Your task to perform on an android device: toggle notifications settings in the gmail app Image 0: 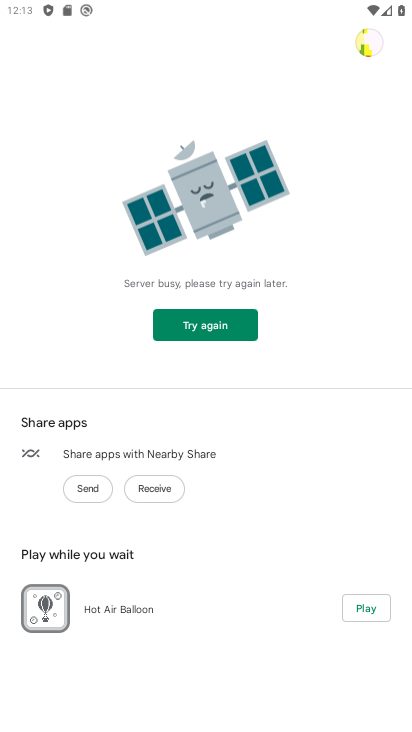
Step 0: press home button
Your task to perform on an android device: toggle notifications settings in the gmail app Image 1: 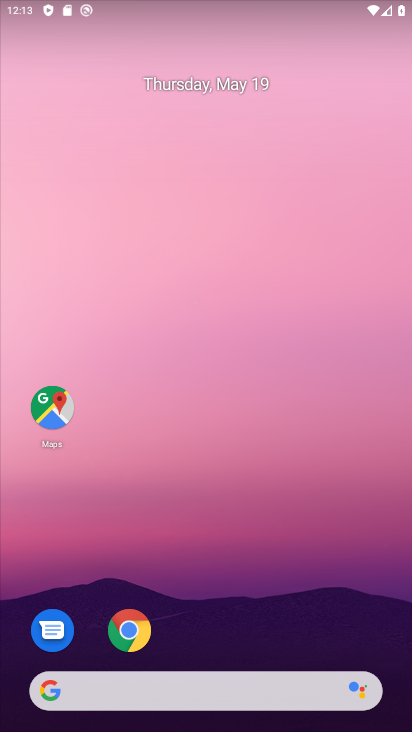
Step 1: drag from (227, 639) to (304, 290)
Your task to perform on an android device: toggle notifications settings in the gmail app Image 2: 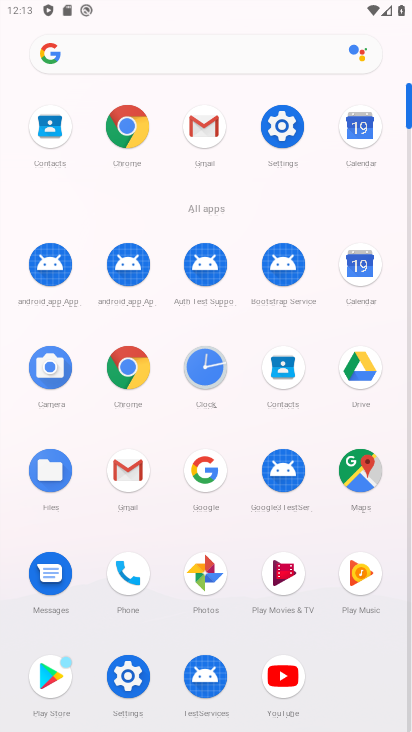
Step 2: click (209, 139)
Your task to perform on an android device: toggle notifications settings in the gmail app Image 3: 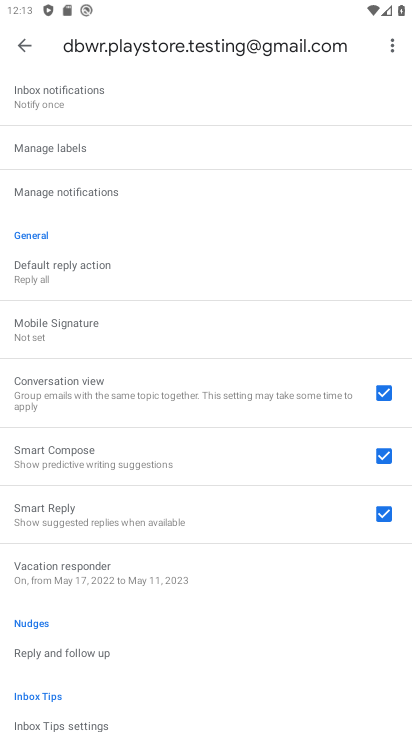
Step 3: click (23, 42)
Your task to perform on an android device: toggle notifications settings in the gmail app Image 4: 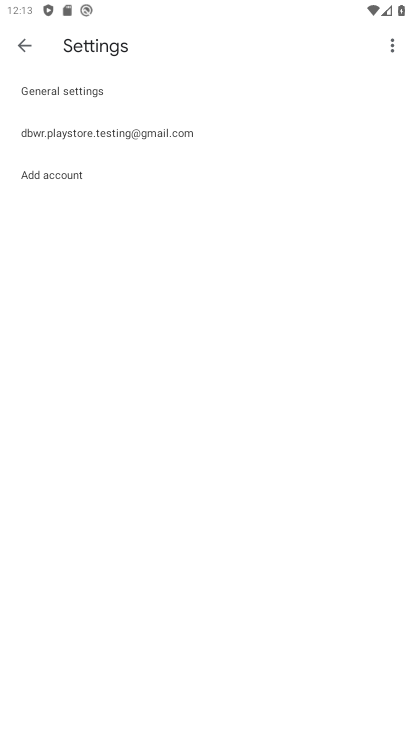
Step 4: click (120, 126)
Your task to perform on an android device: toggle notifications settings in the gmail app Image 5: 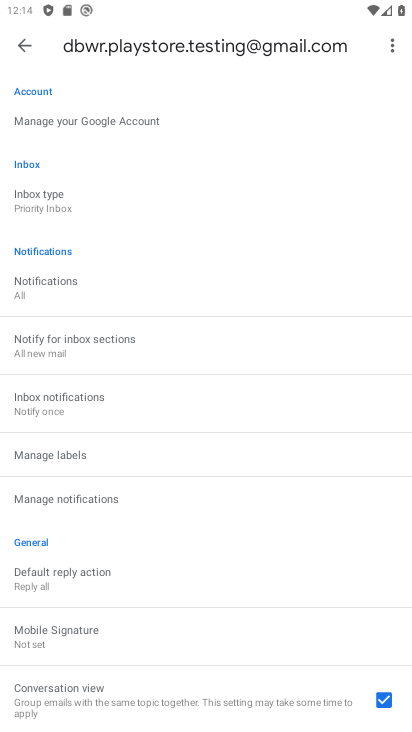
Step 5: click (112, 500)
Your task to perform on an android device: toggle notifications settings in the gmail app Image 6: 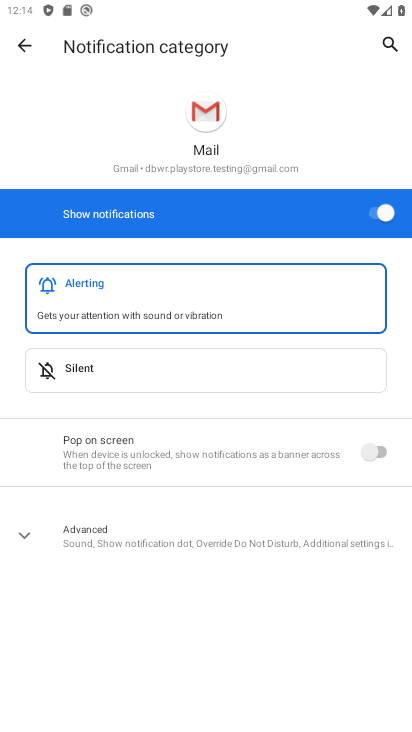
Step 6: click (378, 203)
Your task to perform on an android device: toggle notifications settings in the gmail app Image 7: 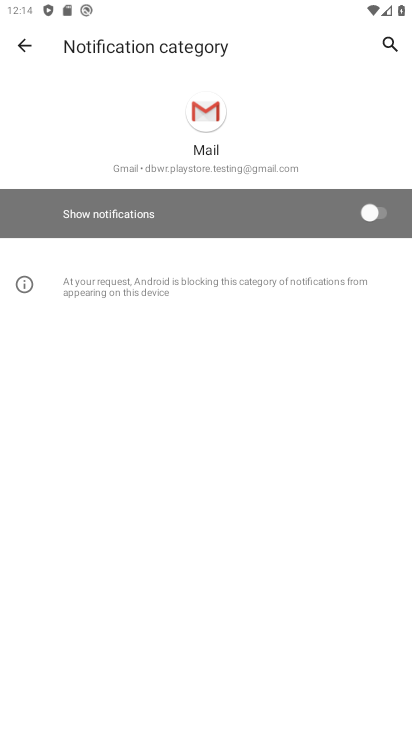
Step 7: task complete